Your task to perform on an android device: see sites visited before in the chrome app Image 0: 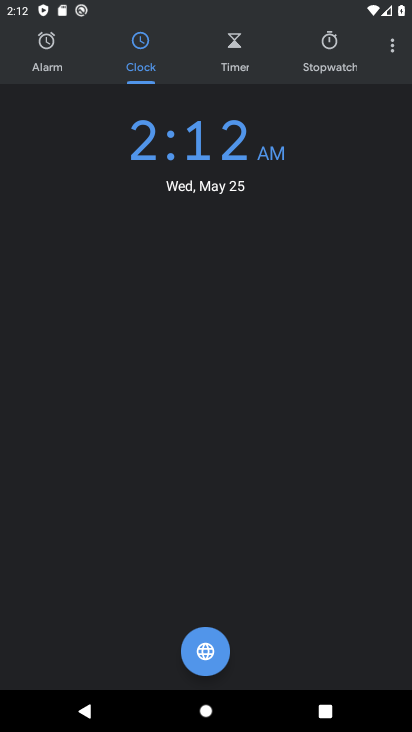
Step 0: press home button
Your task to perform on an android device: see sites visited before in the chrome app Image 1: 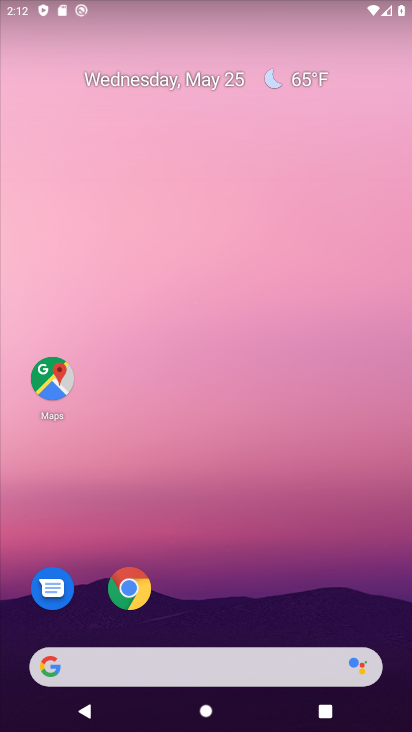
Step 1: click (127, 591)
Your task to perform on an android device: see sites visited before in the chrome app Image 2: 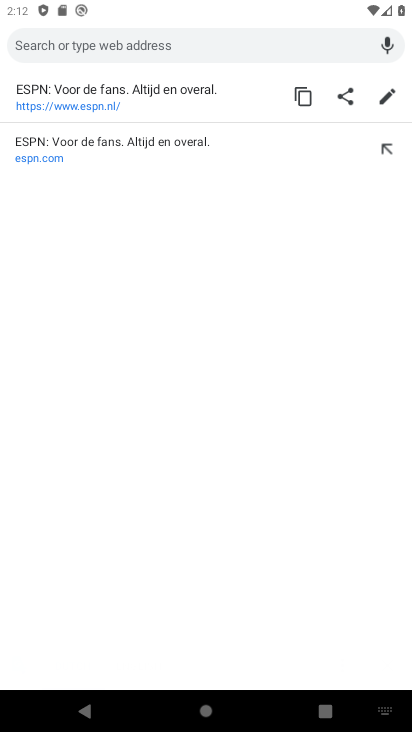
Step 2: click (82, 234)
Your task to perform on an android device: see sites visited before in the chrome app Image 3: 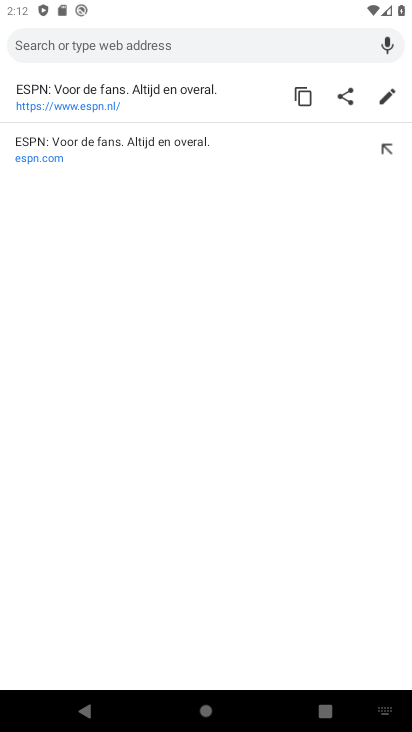
Step 3: press back button
Your task to perform on an android device: see sites visited before in the chrome app Image 4: 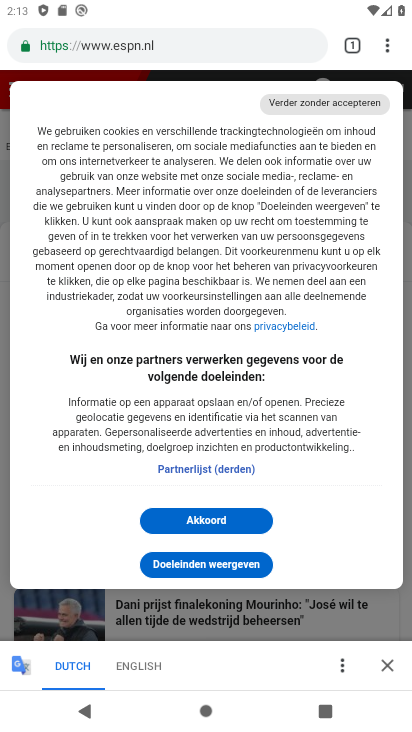
Step 4: click (384, 47)
Your task to perform on an android device: see sites visited before in the chrome app Image 5: 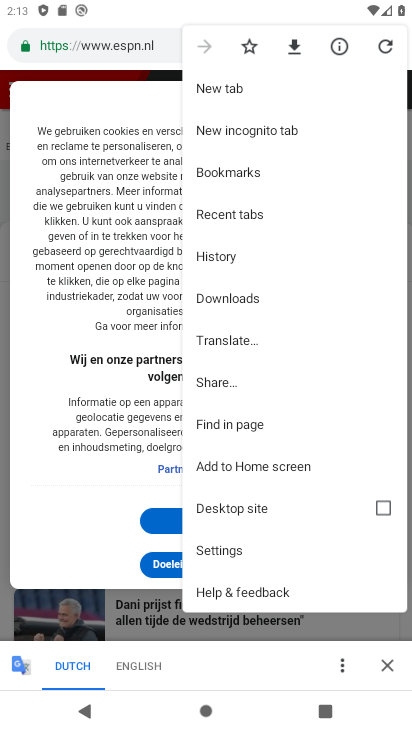
Step 5: click (235, 214)
Your task to perform on an android device: see sites visited before in the chrome app Image 6: 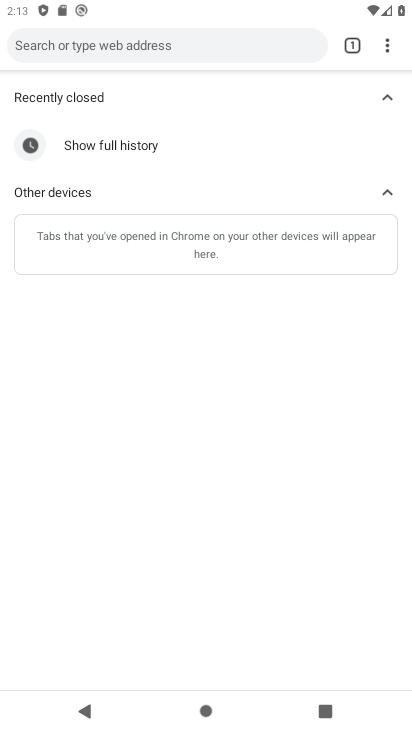
Step 6: task complete